Your task to perform on an android device: Open ESPN.com Image 0: 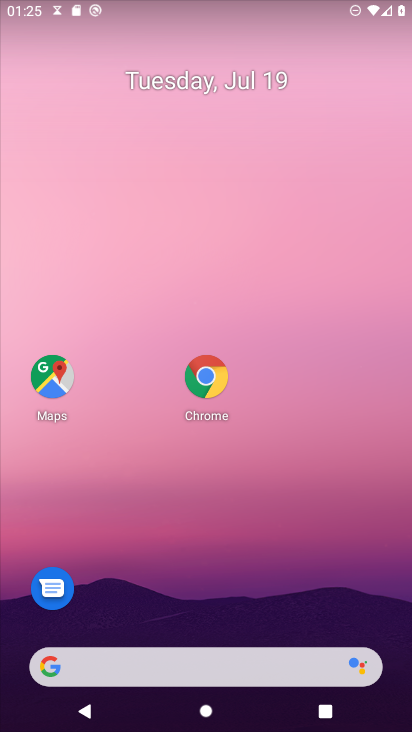
Step 0: click (45, 673)
Your task to perform on an android device: Open ESPN.com Image 1: 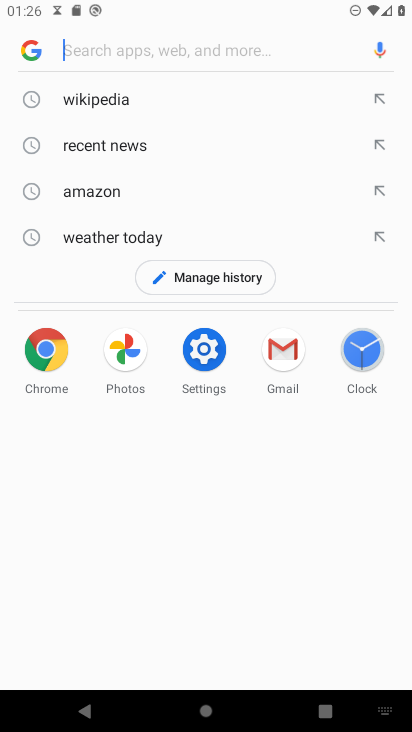
Step 1: type " ESPN.com"
Your task to perform on an android device: Open ESPN.com Image 2: 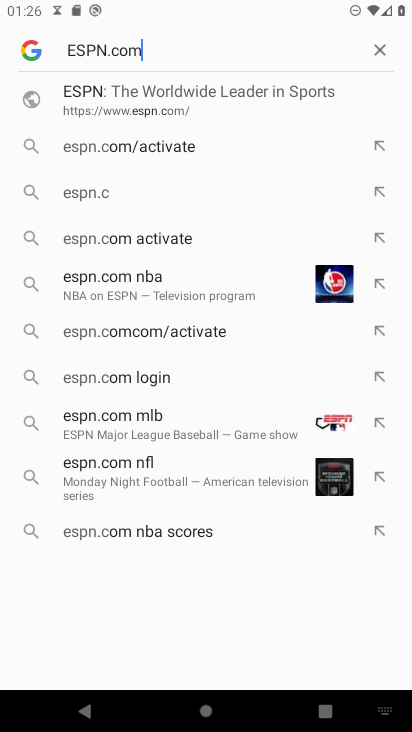
Step 2: press enter
Your task to perform on an android device: Open ESPN.com Image 3: 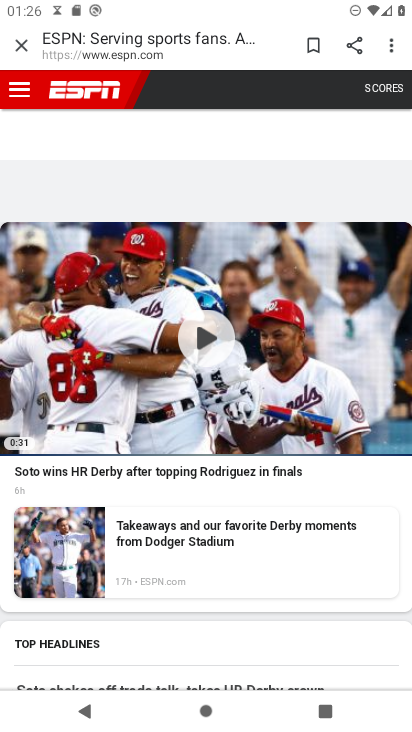
Step 3: task complete